Your task to perform on an android device: visit the assistant section in the google photos Image 0: 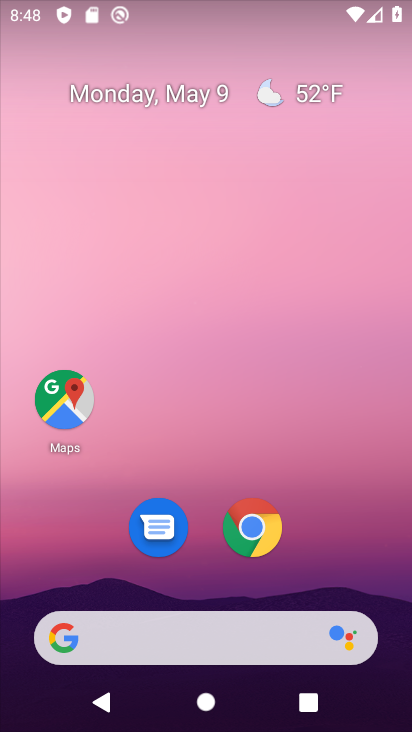
Step 0: drag from (365, 561) to (364, 8)
Your task to perform on an android device: visit the assistant section in the google photos Image 1: 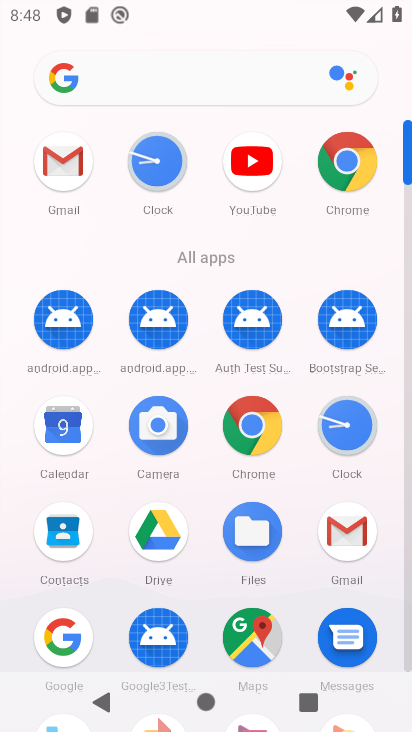
Step 1: drag from (197, 587) to (186, 317)
Your task to perform on an android device: visit the assistant section in the google photos Image 2: 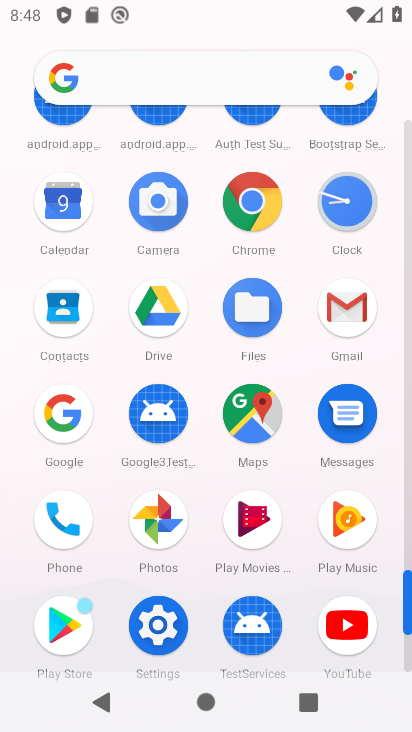
Step 2: click (153, 526)
Your task to perform on an android device: visit the assistant section in the google photos Image 3: 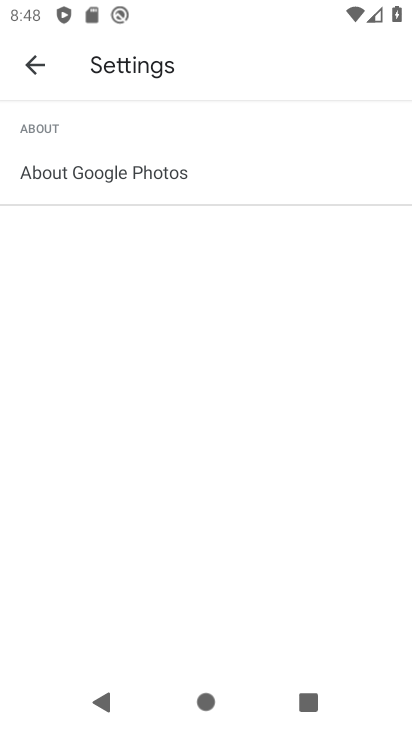
Step 3: click (38, 64)
Your task to perform on an android device: visit the assistant section in the google photos Image 4: 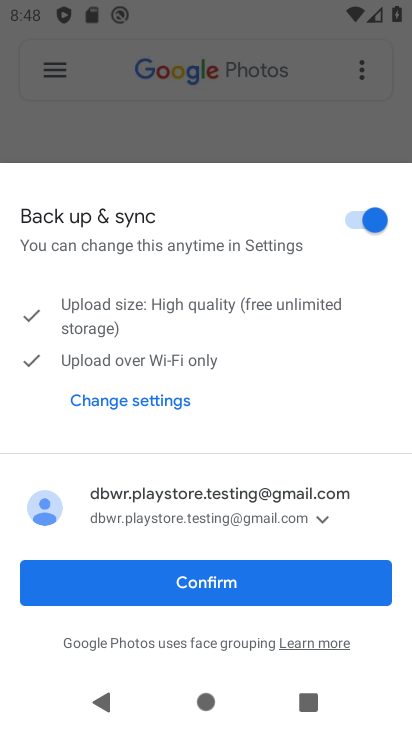
Step 4: click (217, 592)
Your task to perform on an android device: visit the assistant section in the google photos Image 5: 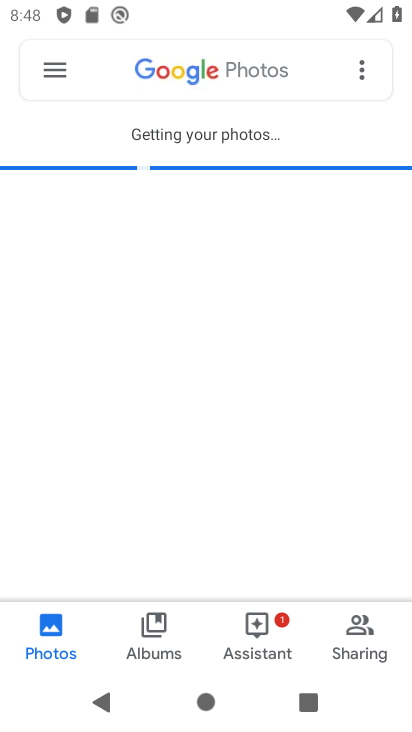
Step 5: click (263, 636)
Your task to perform on an android device: visit the assistant section in the google photos Image 6: 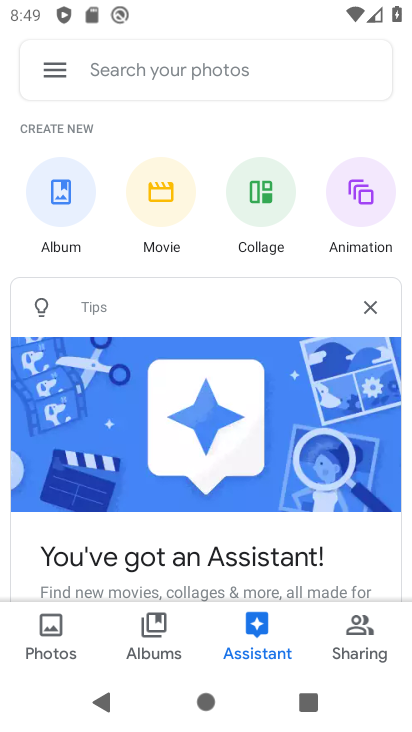
Step 6: task complete